Your task to perform on an android device: check the backup settings in the google photos Image 0: 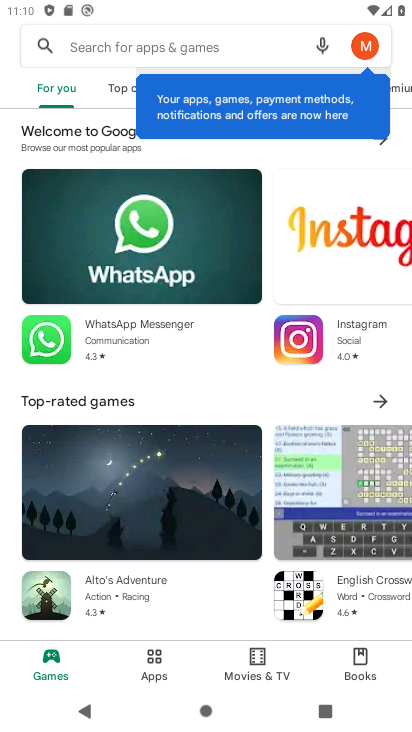
Step 0: press home button
Your task to perform on an android device: check the backup settings in the google photos Image 1: 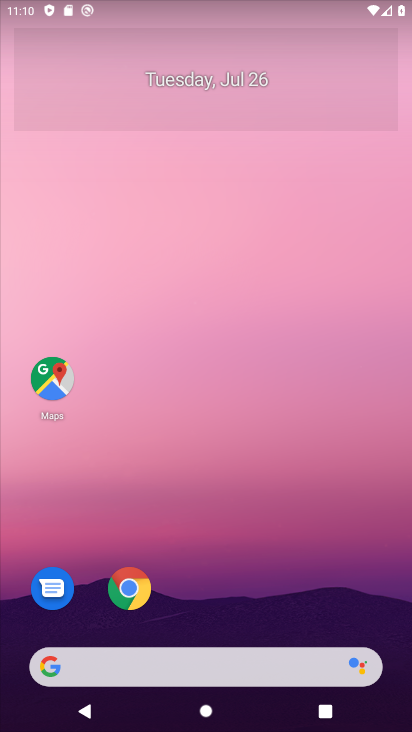
Step 1: drag from (27, 699) to (184, 80)
Your task to perform on an android device: check the backup settings in the google photos Image 2: 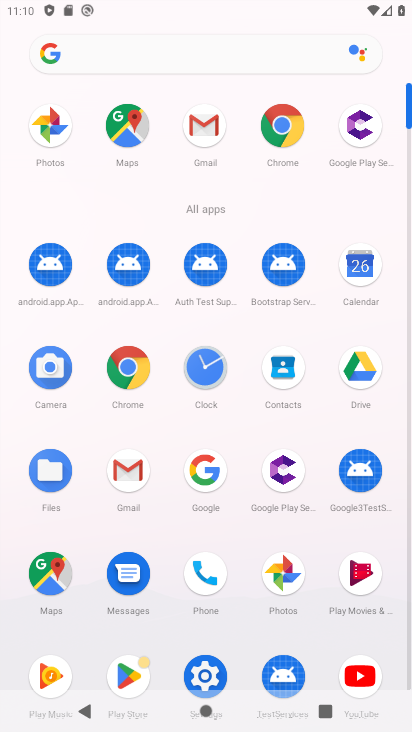
Step 2: click (280, 557)
Your task to perform on an android device: check the backup settings in the google photos Image 3: 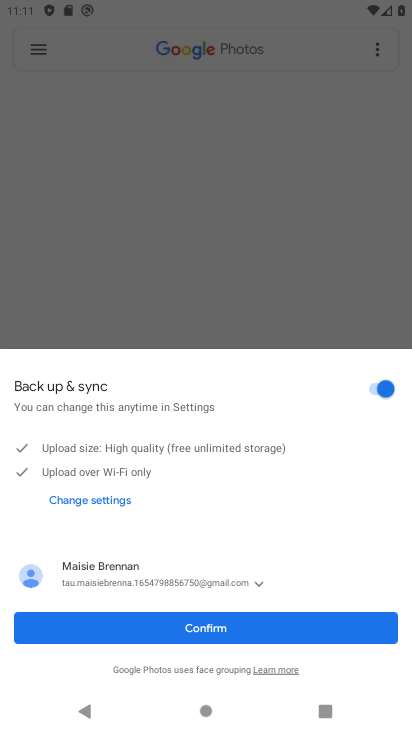
Step 3: click (207, 627)
Your task to perform on an android device: check the backup settings in the google photos Image 4: 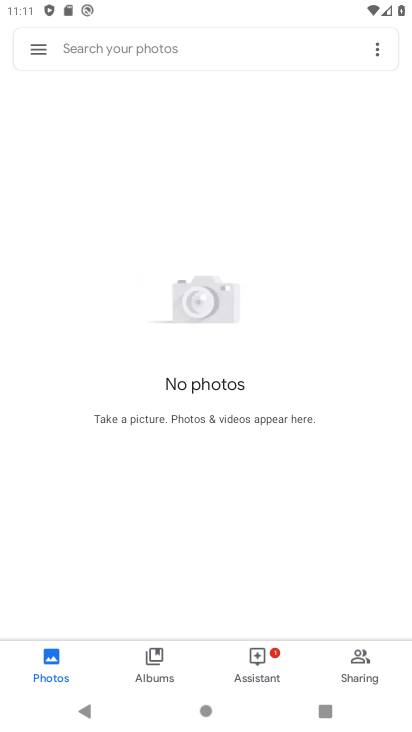
Step 4: click (374, 51)
Your task to perform on an android device: check the backup settings in the google photos Image 5: 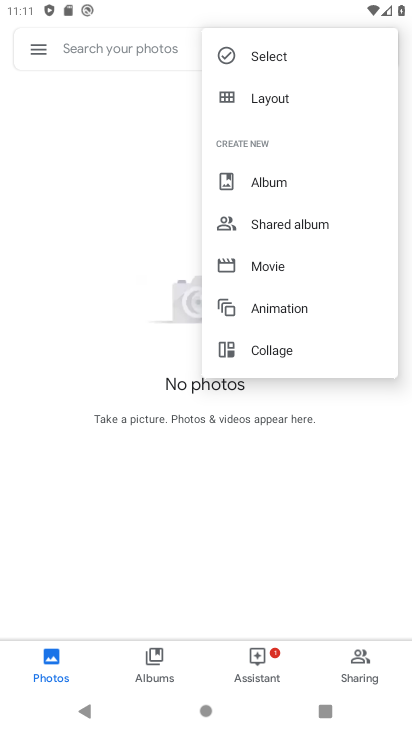
Step 5: click (48, 47)
Your task to perform on an android device: check the backup settings in the google photos Image 6: 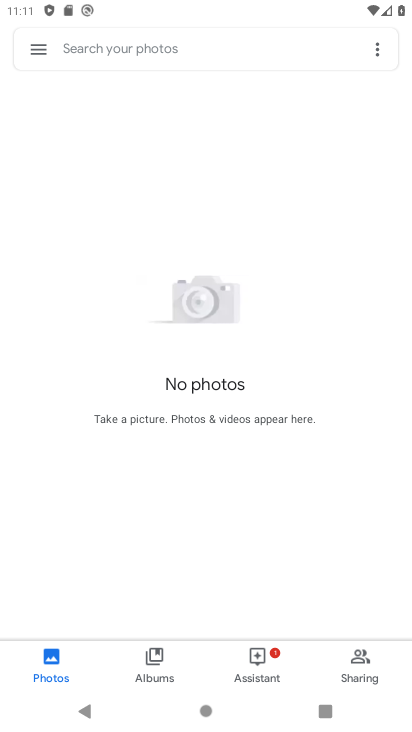
Step 6: click (37, 50)
Your task to perform on an android device: check the backup settings in the google photos Image 7: 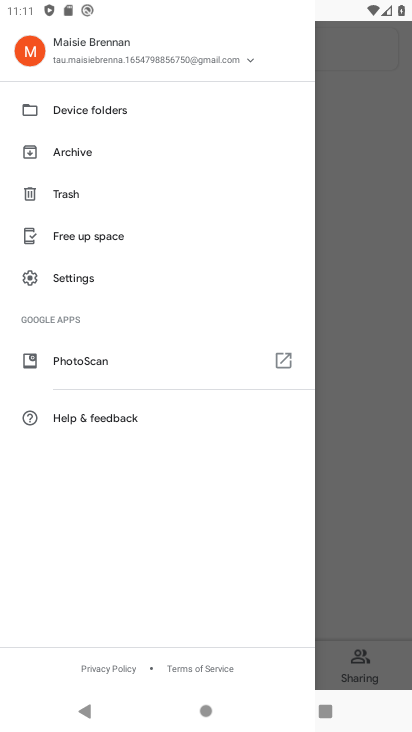
Step 7: click (86, 281)
Your task to perform on an android device: check the backup settings in the google photos Image 8: 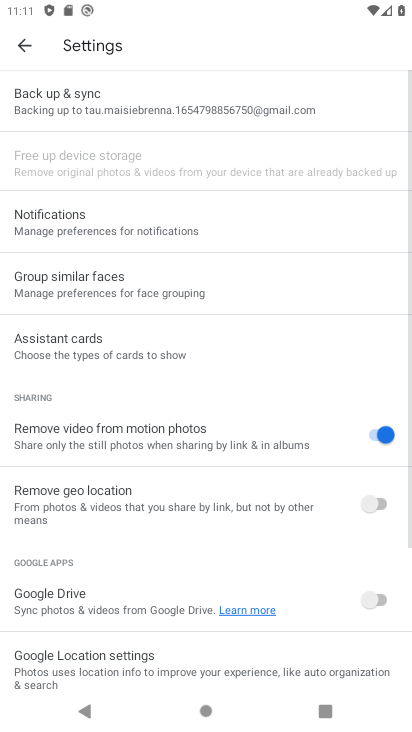
Step 8: click (119, 95)
Your task to perform on an android device: check the backup settings in the google photos Image 9: 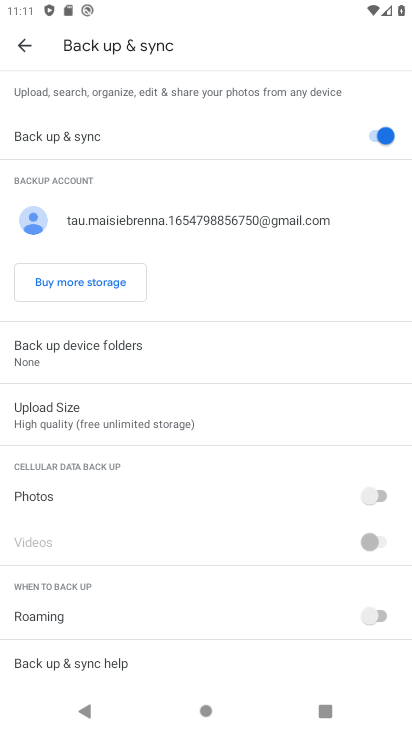
Step 9: task complete